Your task to perform on an android device: Go to internet settings Image 0: 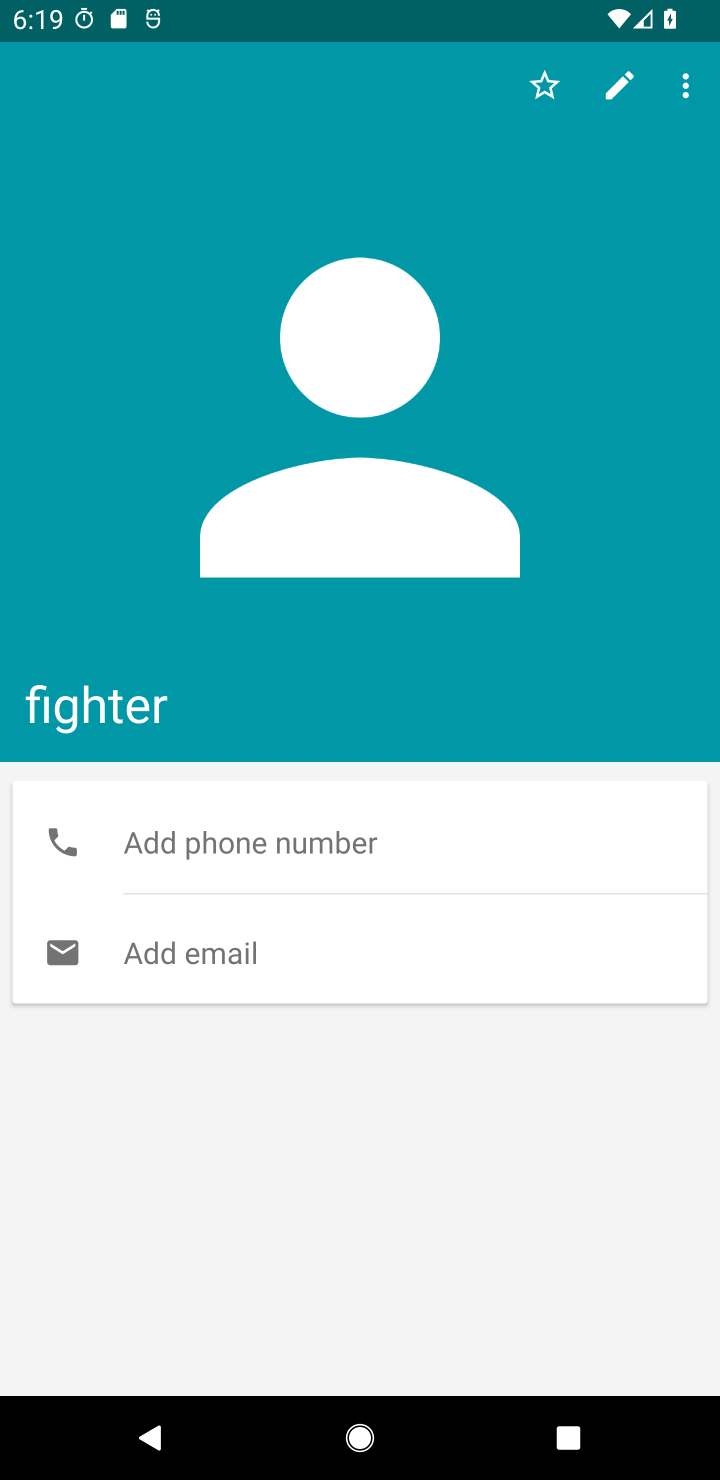
Step 0: press home button
Your task to perform on an android device: Go to internet settings Image 1: 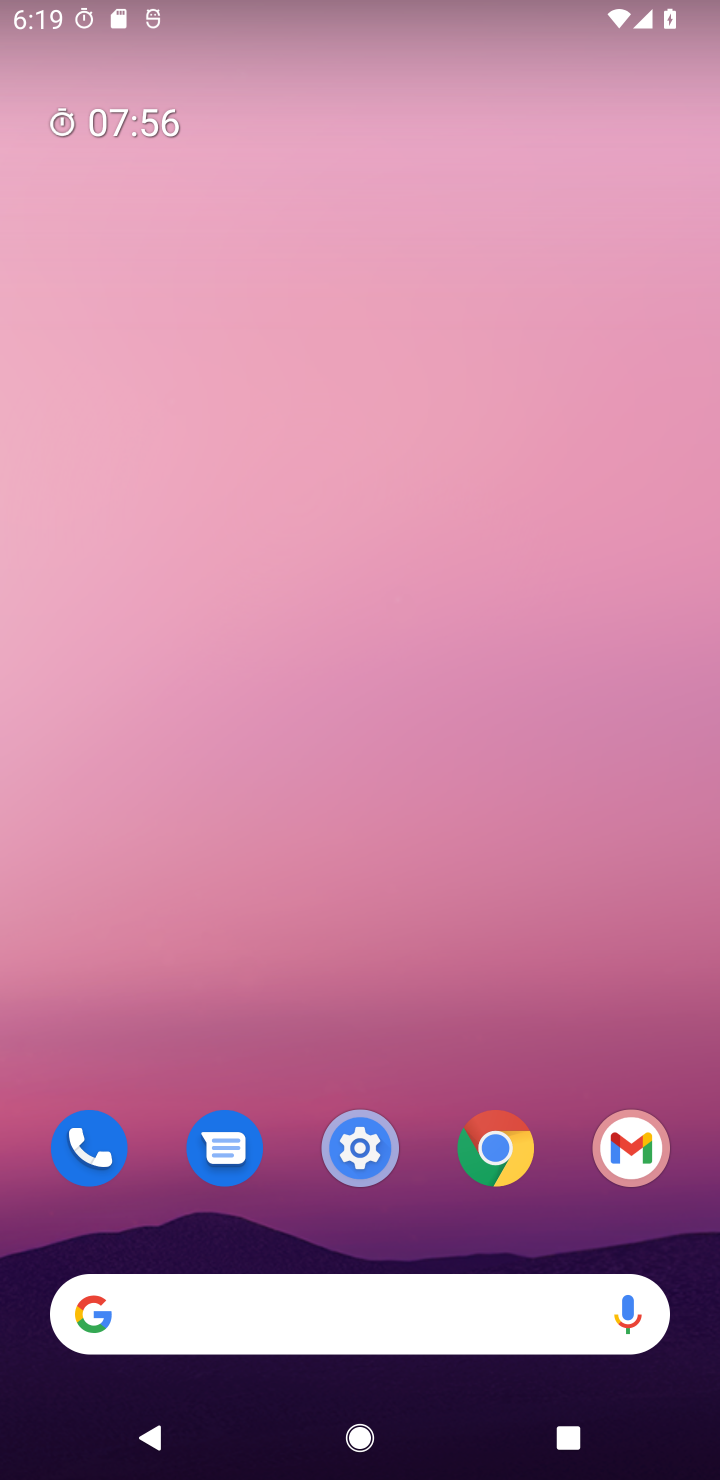
Step 1: click (367, 1166)
Your task to perform on an android device: Go to internet settings Image 2: 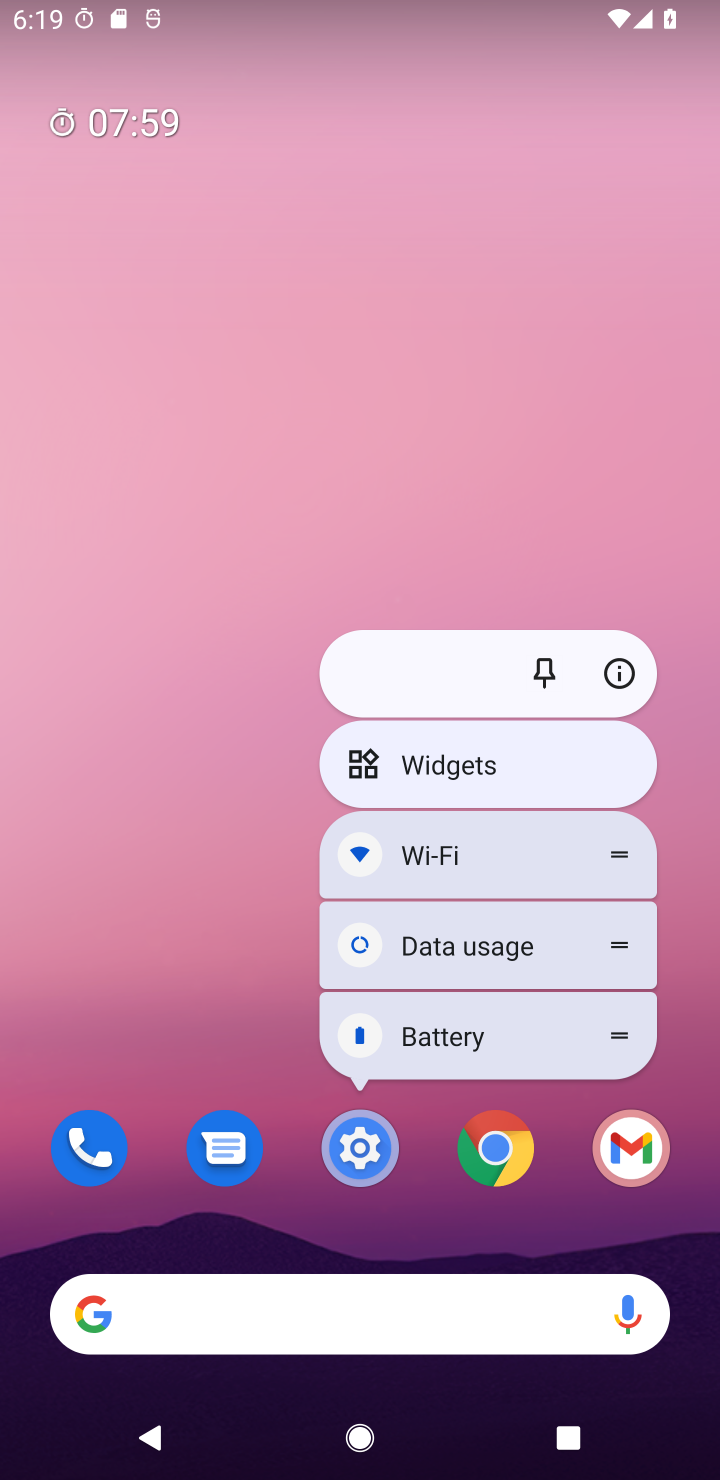
Step 2: click (360, 1156)
Your task to perform on an android device: Go to internet settings Image 3: 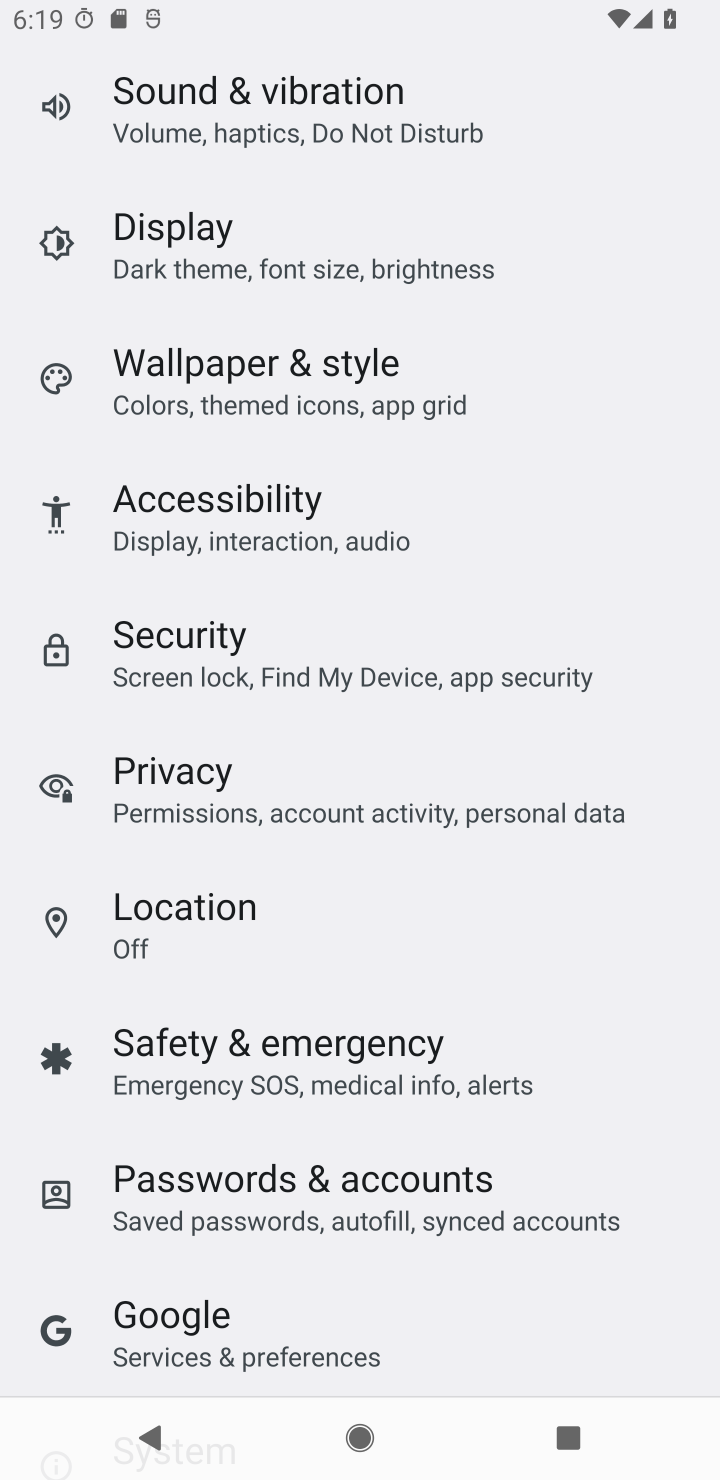
Step 3: drag from (229, 1268) to (170, 1461)
Your task to perform on an android device: Go to internet settings Image 4: 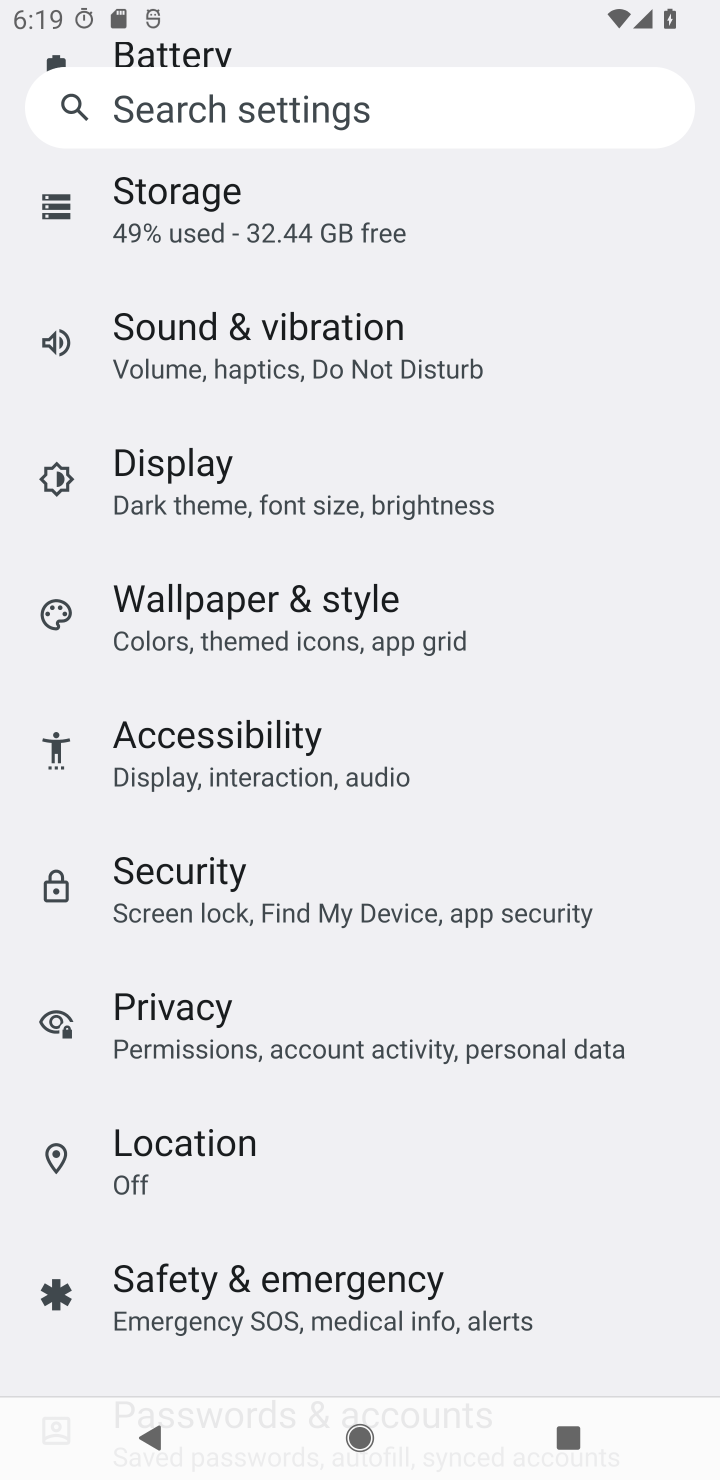
Step 4: drag from (292, 532) to (319, 1273)
Your task to perform on an android device: Go to internet settings Image 5: 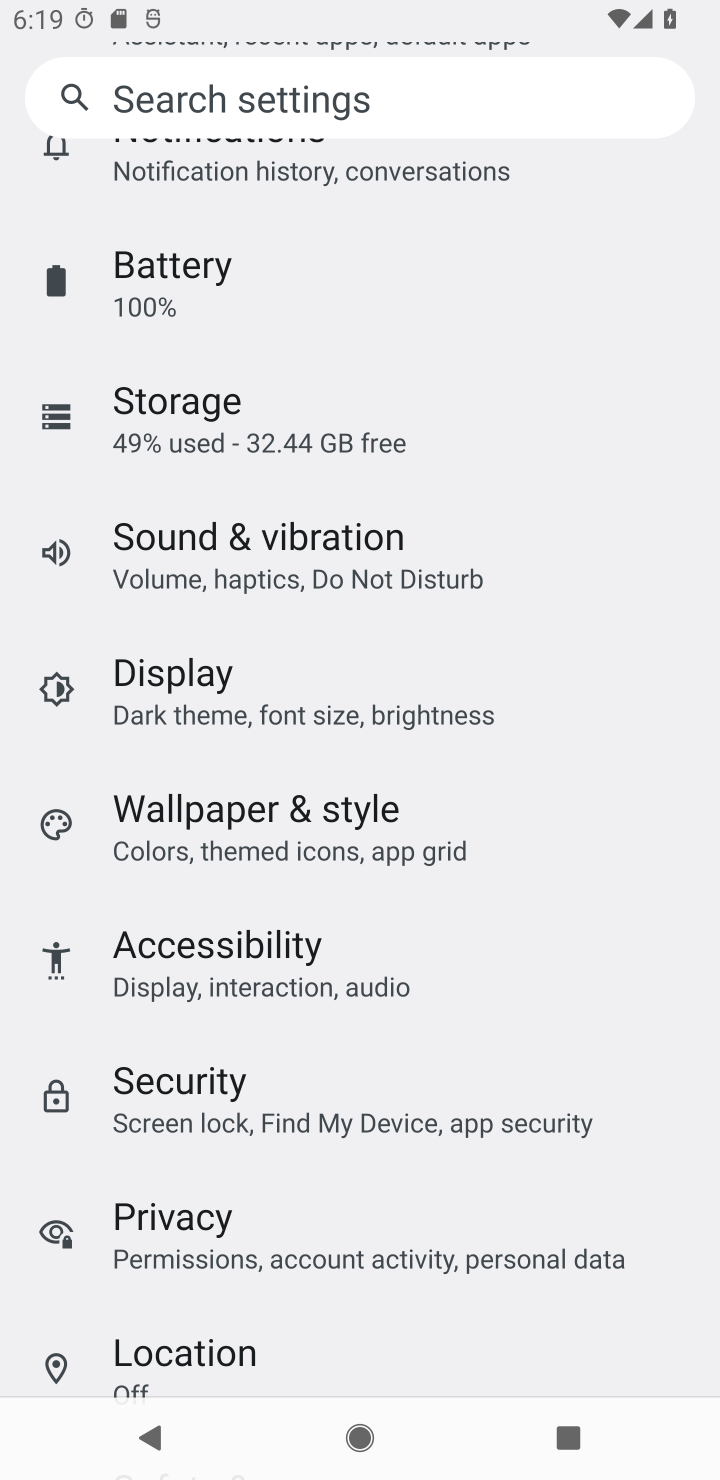
Step 5: drag from (374, 355) to (401, 1424)
Your task to perform on an android device: Go to internet settings Image 6: 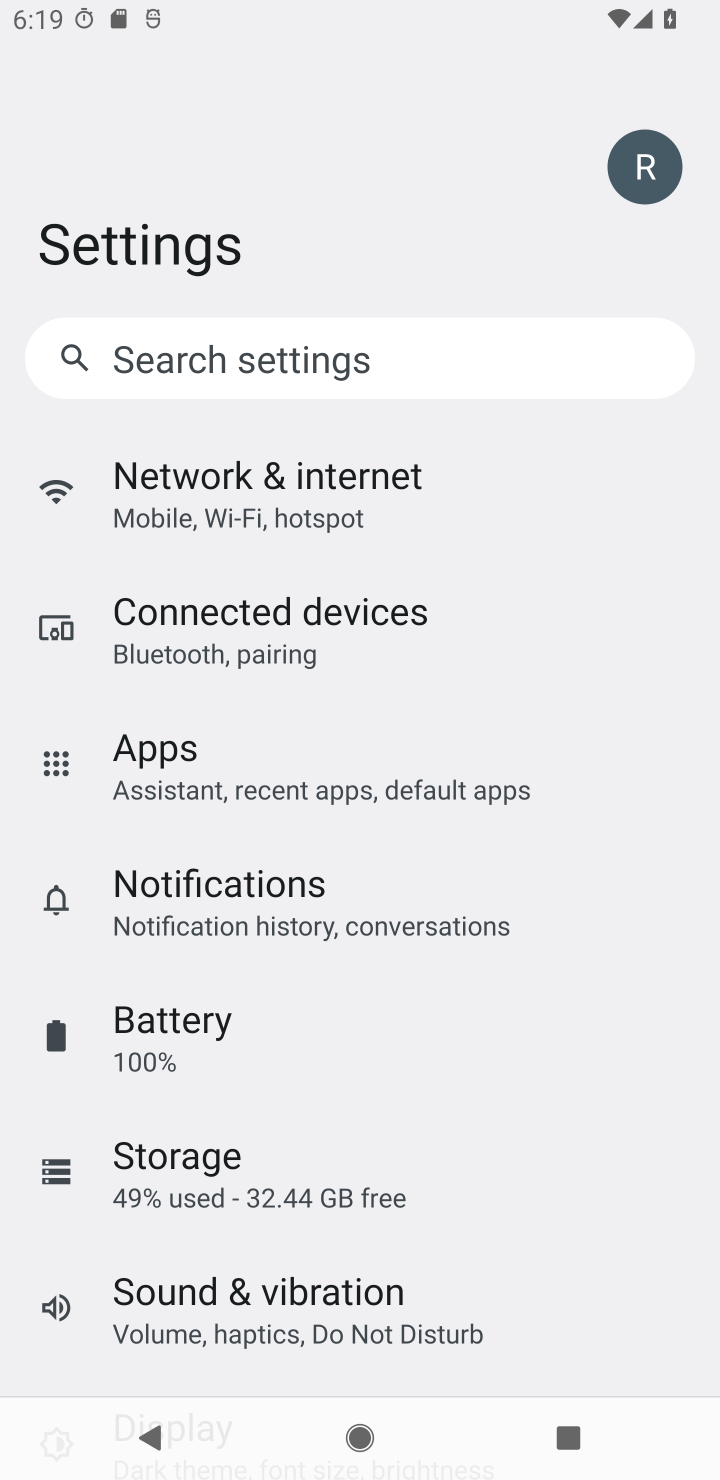
Step 6: click (288, 511)
Your task to perform on an android device: Go to internet settings Image 7: 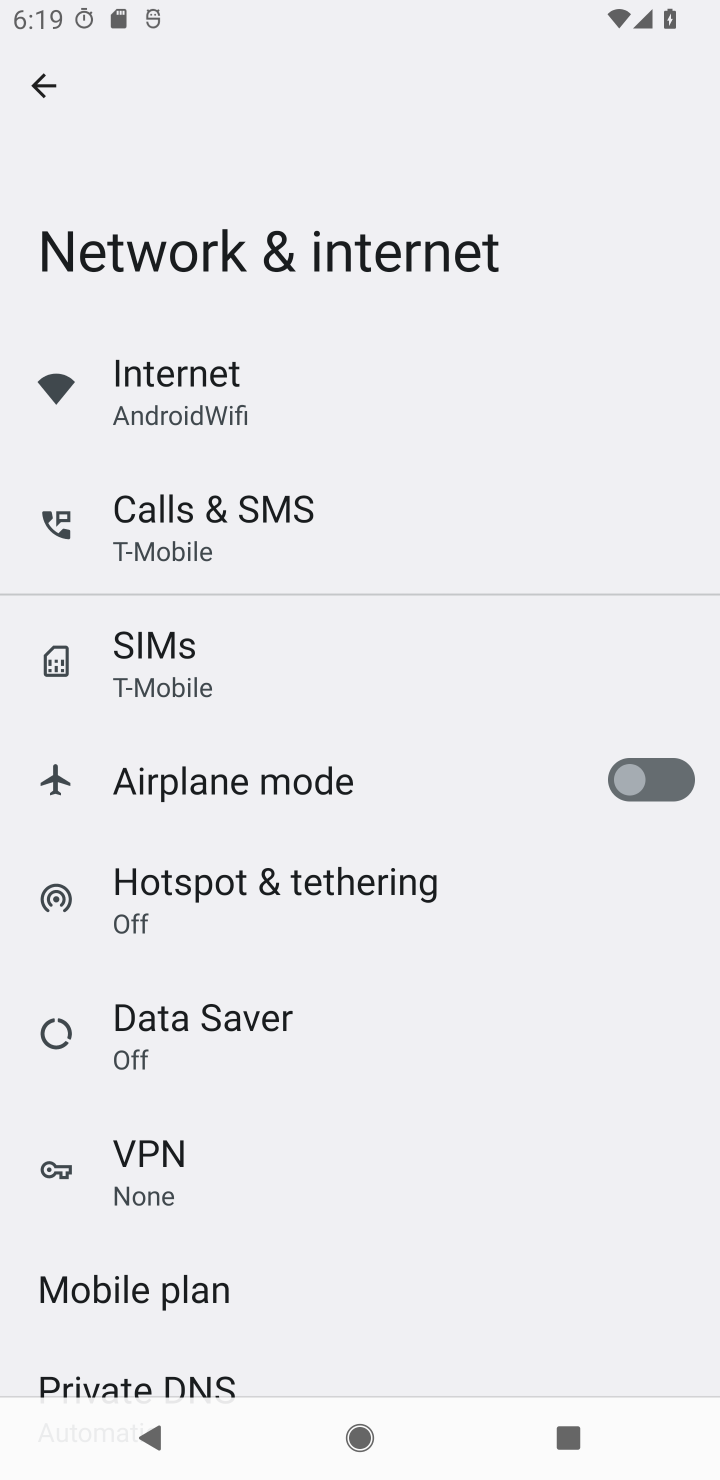
Step 7: click (205, 413)
Your task to perform on an android device: Go to internet settings Image 8: 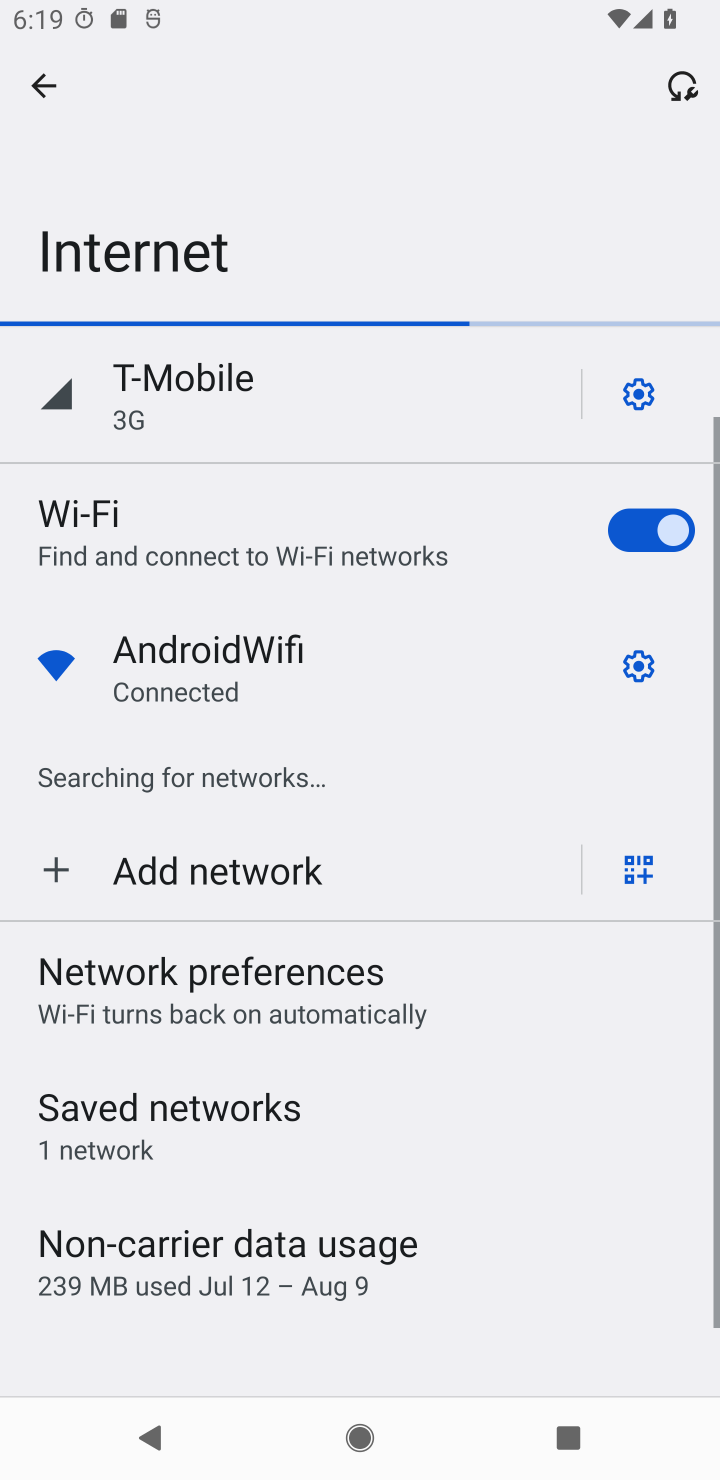
Step 8: task complete